Your task to perform on an android device: Go to Google maps Image 0: 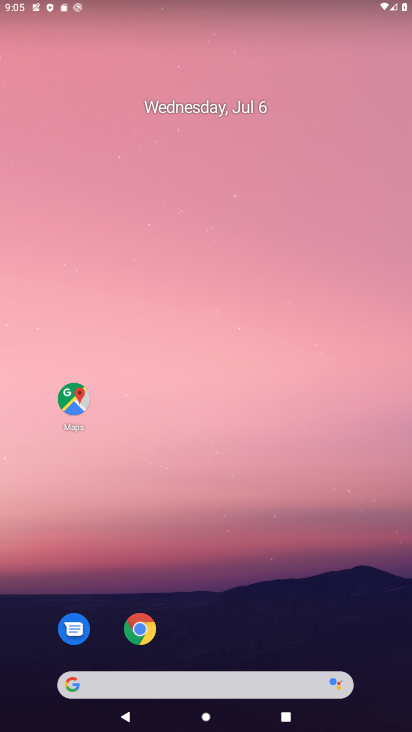
Step 0: drag from (206, 625) to (211, 136)
Your task to perform on an android device: Go to Google maps Image 1: 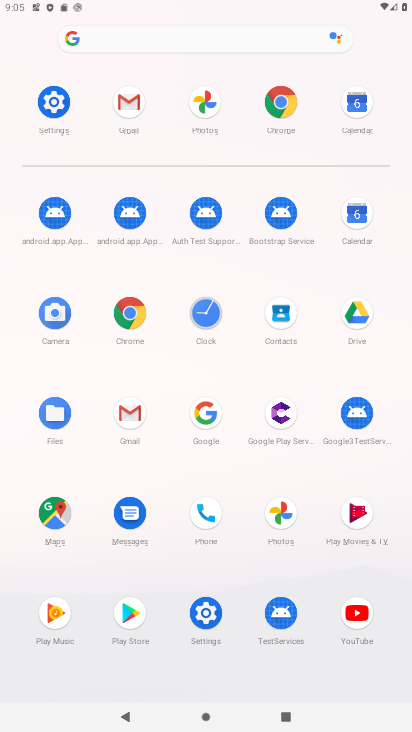
Step 1: click (55, 519)
Your task to perform on an android device: Go to Google maps Image 2: 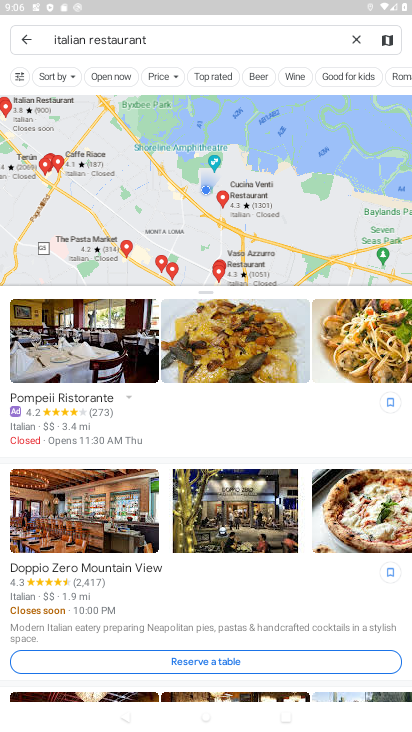
Step 2: task complete